Your task to perform on an android device: turn on airplane mode Image 0: 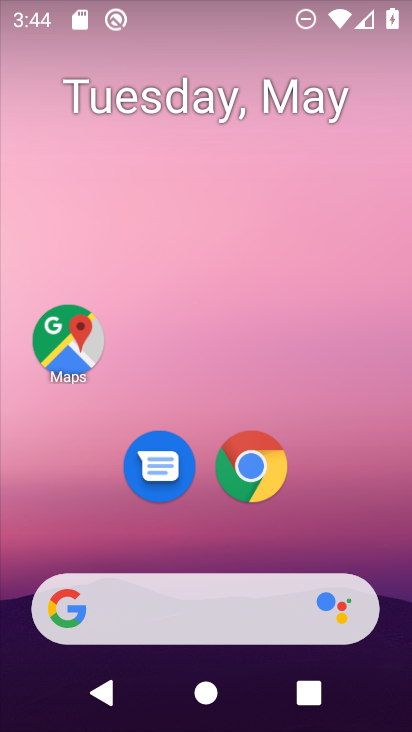
Step 0: drag from (351, 2) to (289, 474)
Your task to perform on an android device: turn on airplane mode Image 1: 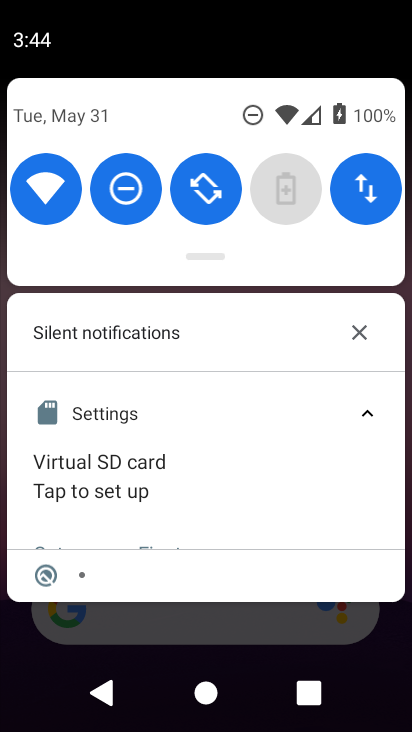
Step 1: drag from (201, 249) to (160, 675)
Your task to perform on an android device: turn on airplane mode Image 2: 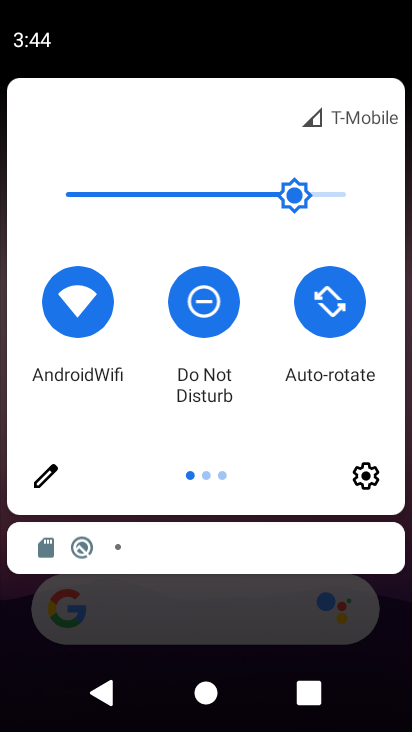
Step 2: drag from (394, 275) to (45, 267)
Your task to perform on an android device: turn on airplane mode Image 3: 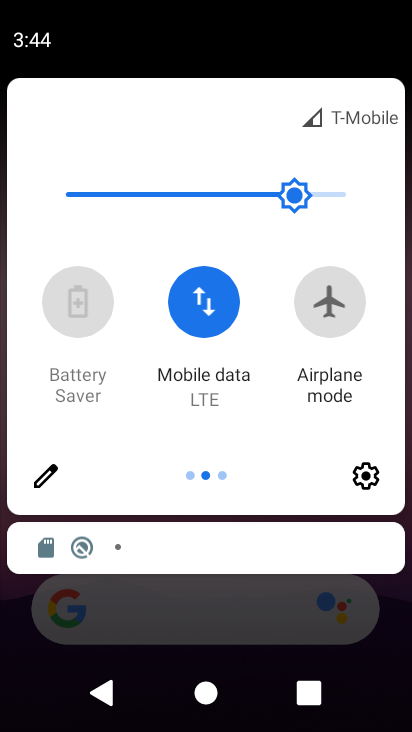
Step 3: click (314, 295)
Your task to perform on an android device: turn on airplane mode Image 4: 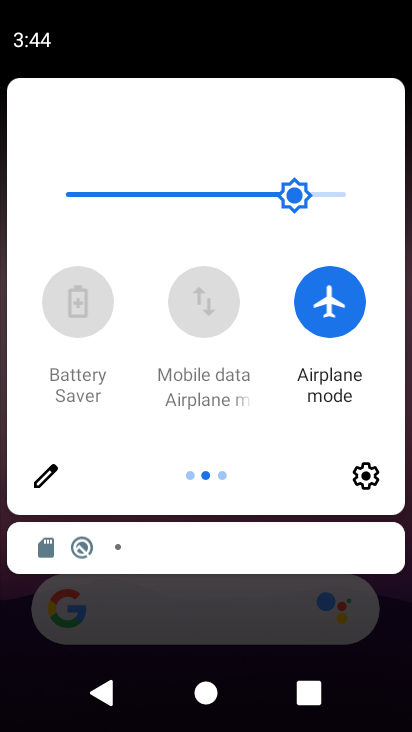
Step 4: task complete